Your task to perform on an android device: change the upload size in google photos Image 0: 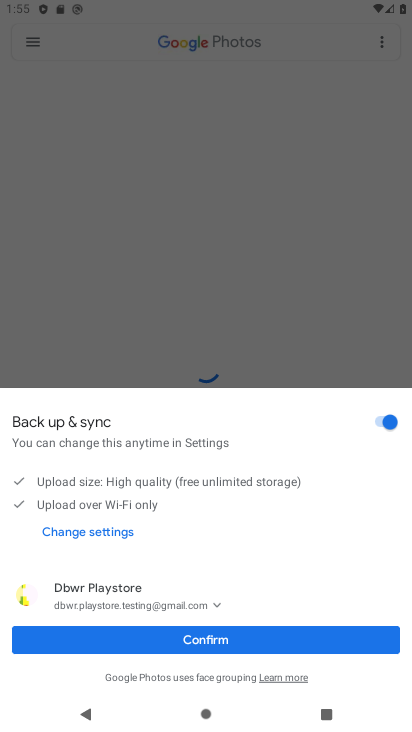
Step 0: click (245, 636)
Your task to perform on an android device: change the upload size in google photos Image 1: 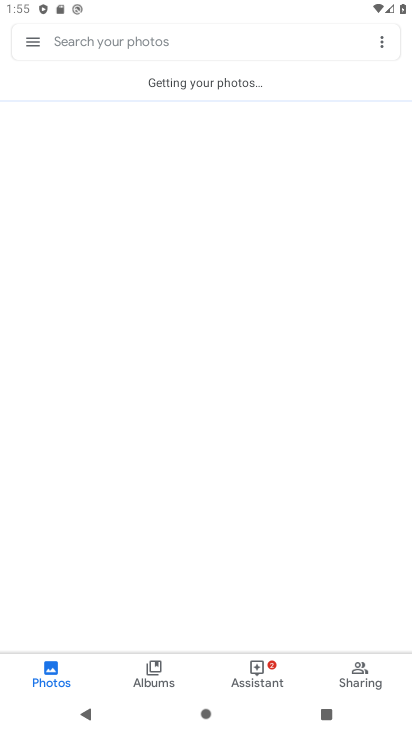
Step 1: click (30, 36)
Your task to perform on an android device: change the upload size in google photos Image 2: 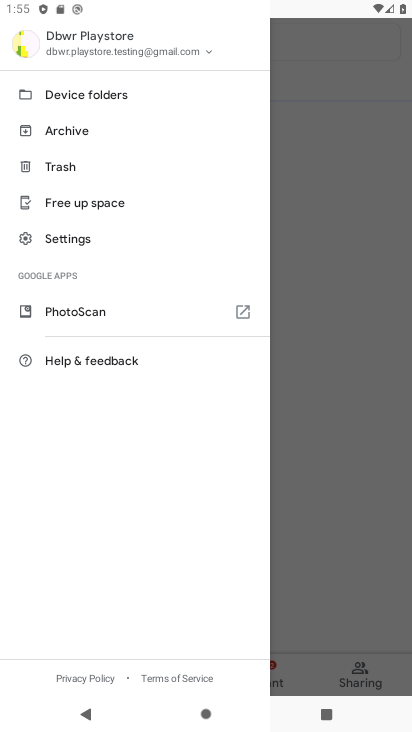
Step 2: click (84, 235)
Your task to perform on an android device: change the upload size in google photos Image 3: 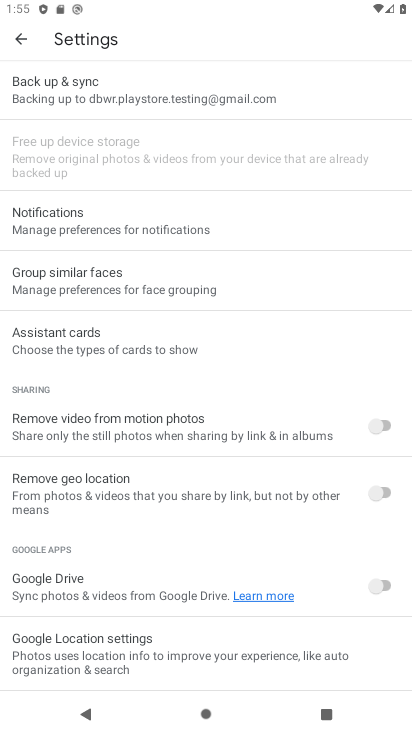
Step 3: drag from (196, 537) to (233, 126)
Your task to perform on an android device: change the upload size in google photos Image 4: 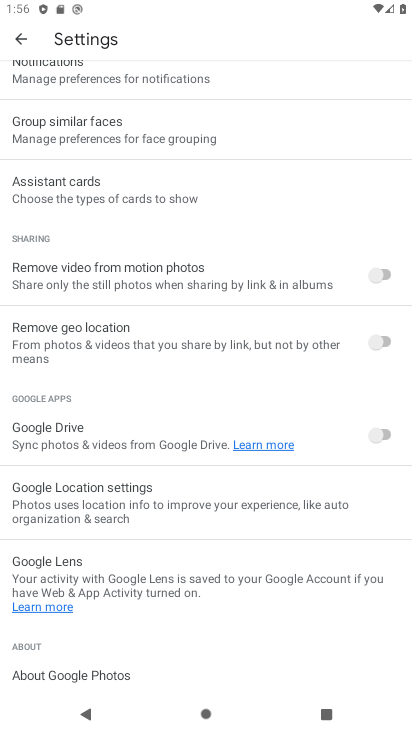
Step 4: drag from (101, 573) to (140, 162)
Your task to perform on an android device: change the upload size in google photos Image 5: 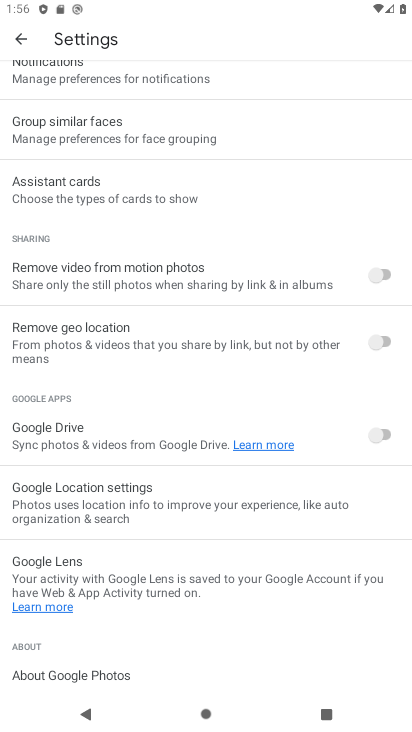
Step 5: drag from (183, 175) to (142, 647)
Your task to perform on an android device: change the upload size in google photos Image 6: 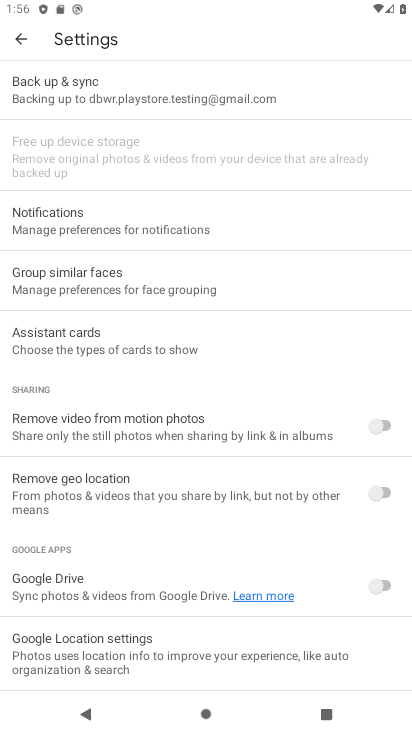
Step 6: click (148, 86)
Your task to perform on an android device: change the upload size in google photos Image 7: 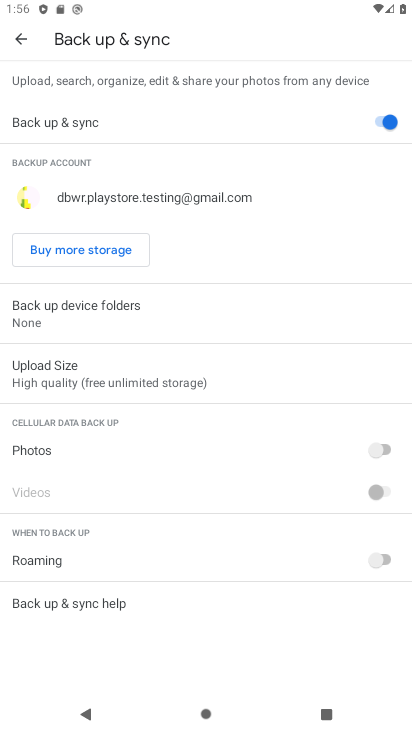
Step 7: click (124, 380)
Your task to perform on an android device: change the upload size in google photos Image 8: 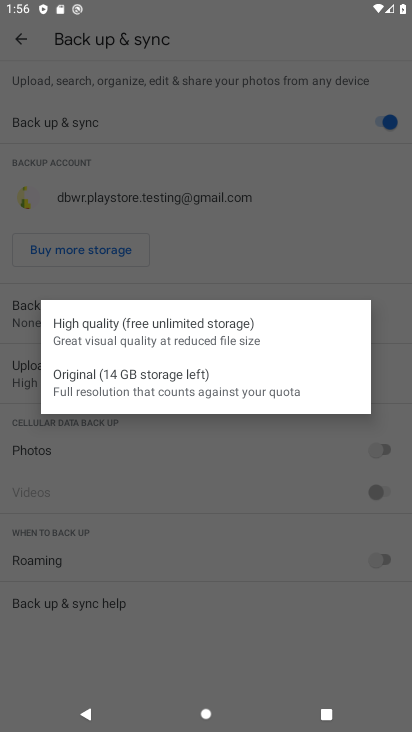
Step 8: click (132, 379)
Your task to perform on an android device: change the upload size in google photos Image 9: 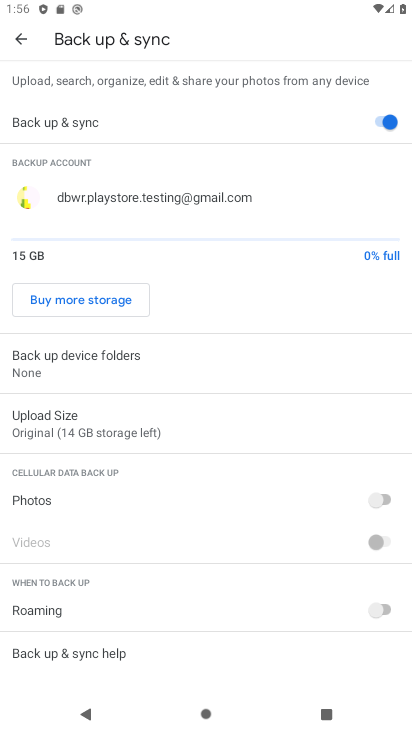
Step 9: task complete